Your task to perform on an android device: Go to Amazon Image 0: 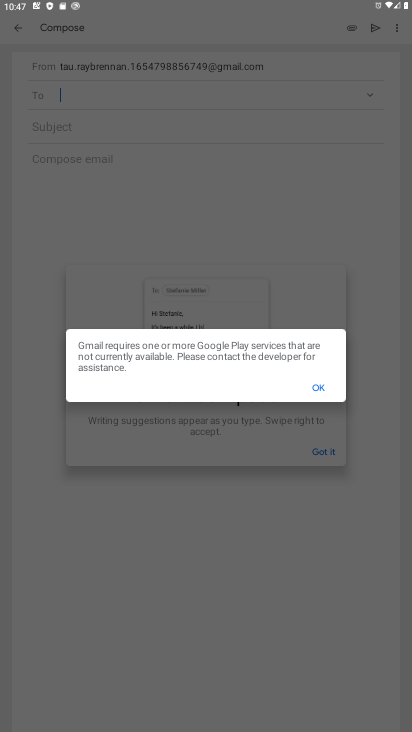
Step 0: press home button
Your task to perform on an android device: Go to Amazon Image 1: 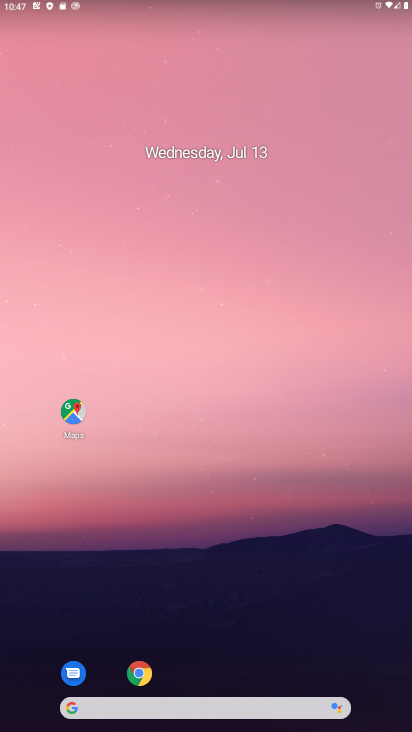
Step 1: click (140, 672)
Your task to perform on an android device: Go to Amazon Image 2: 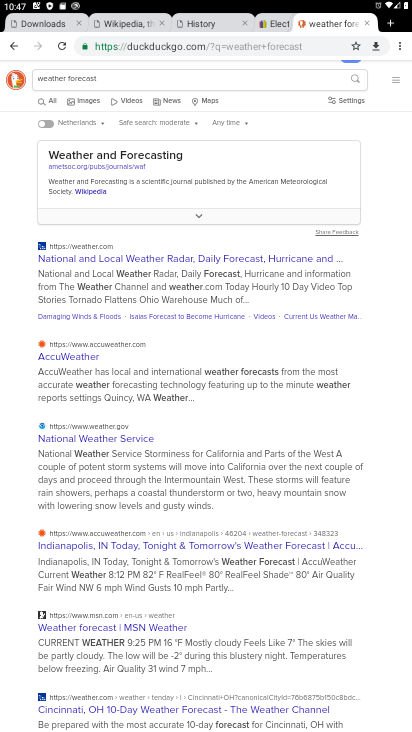
Step 2: click (387, 22)
Your task to perform on an android device: Go to Amazon Image 3: 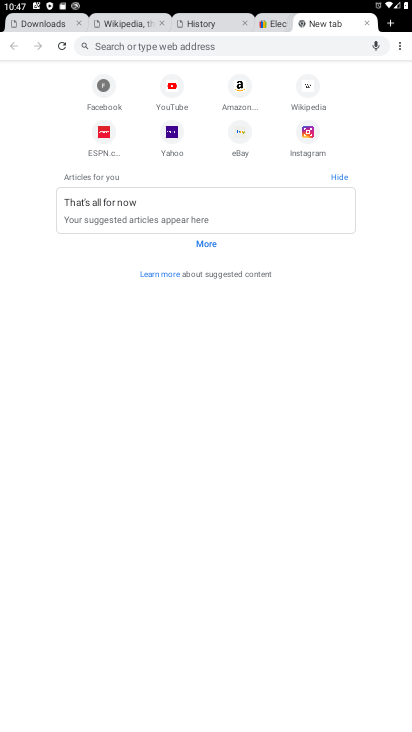
Step 3: click (244, 86)
Your task to perform on an android device: Go to Amazon Image 4: 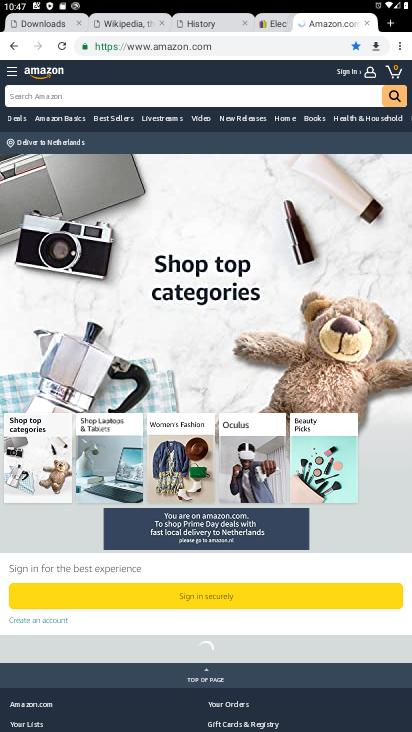
Step 4: task complete